Your task to perform on an android device: clear history in the chrome app Image 0: 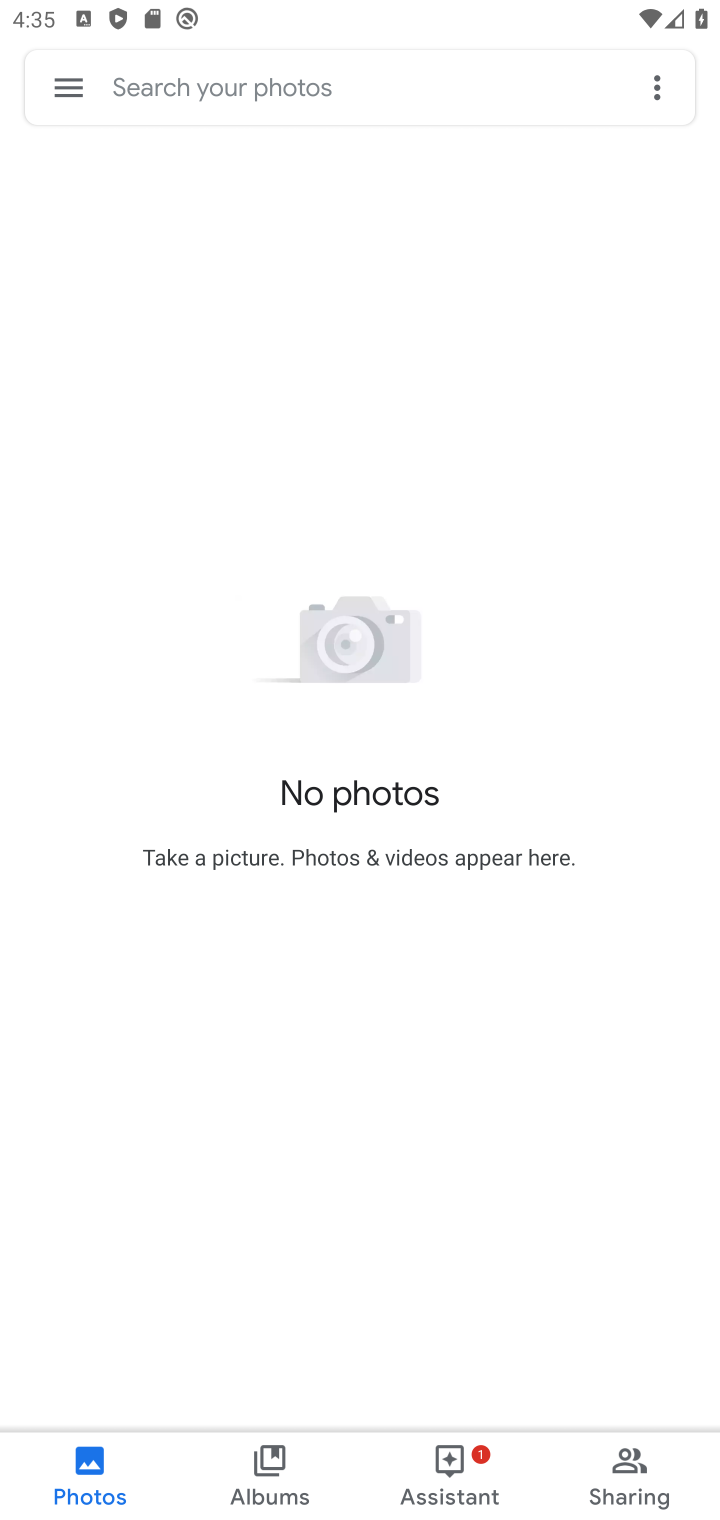
Step 0: press home button
Your task to perform on an android device: clear history in the chrome app Image 1: 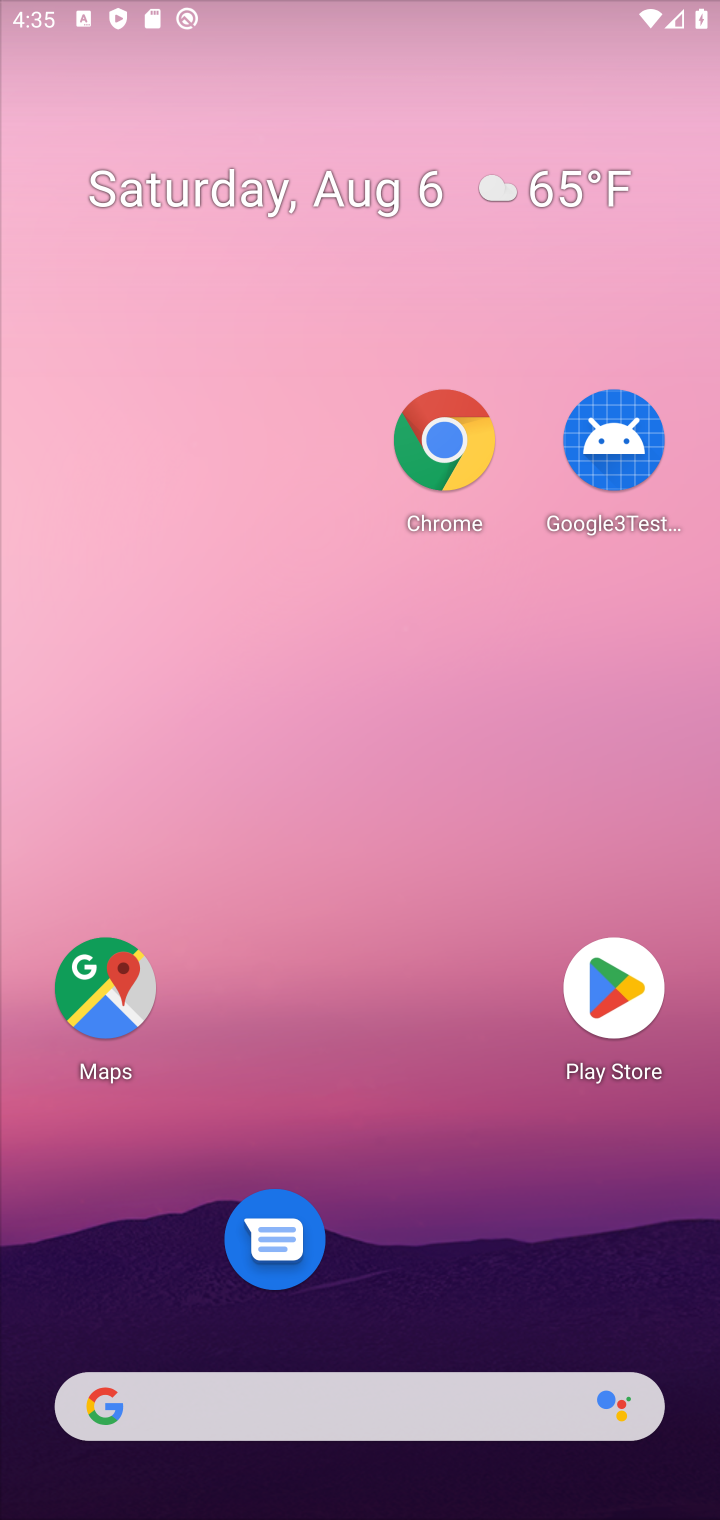
Step 1: drag from (488, 1406) to (522, 93)
Your task to perform on an android device: clear history in the chrome app Image 2: 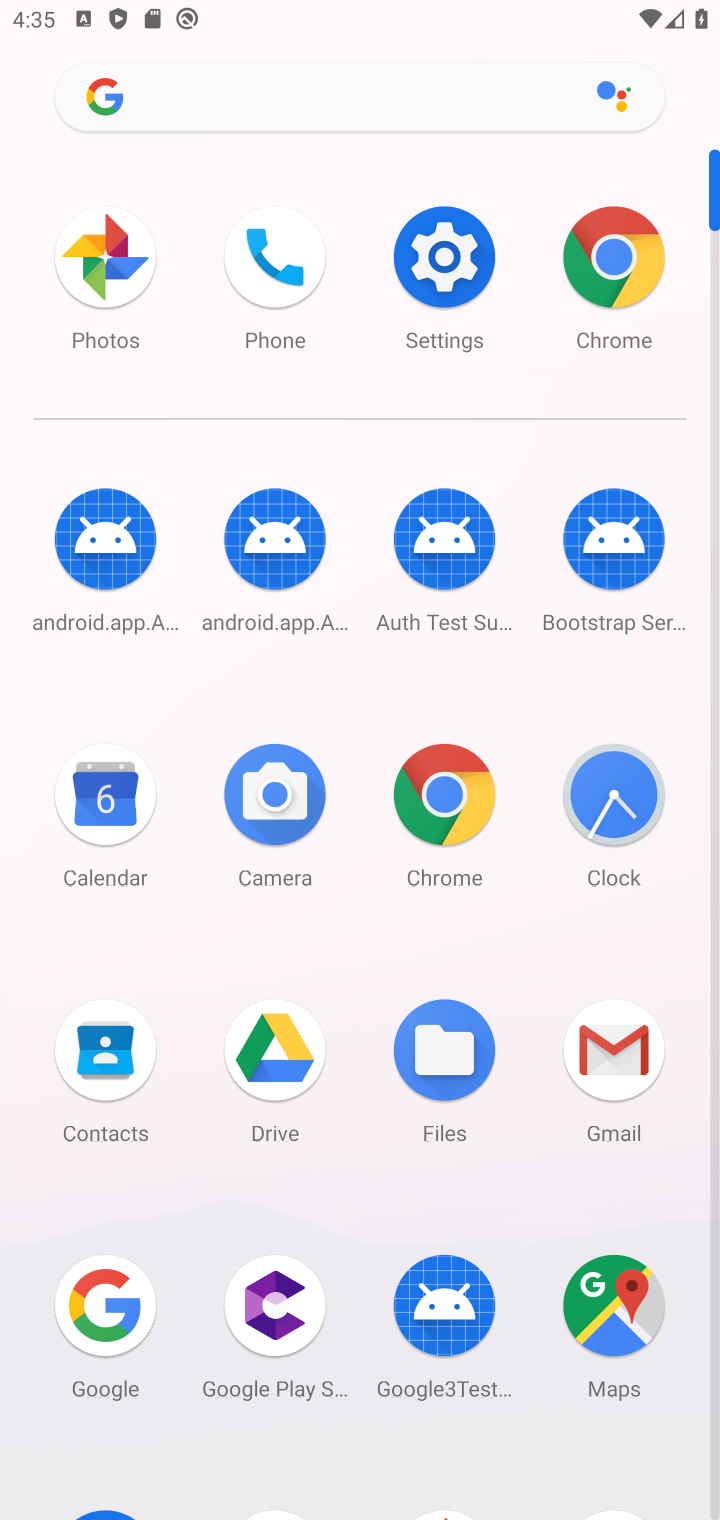
Step 2: click (432, 799)
Your task to perform on an android device: clear history in the chrome app Image 3: 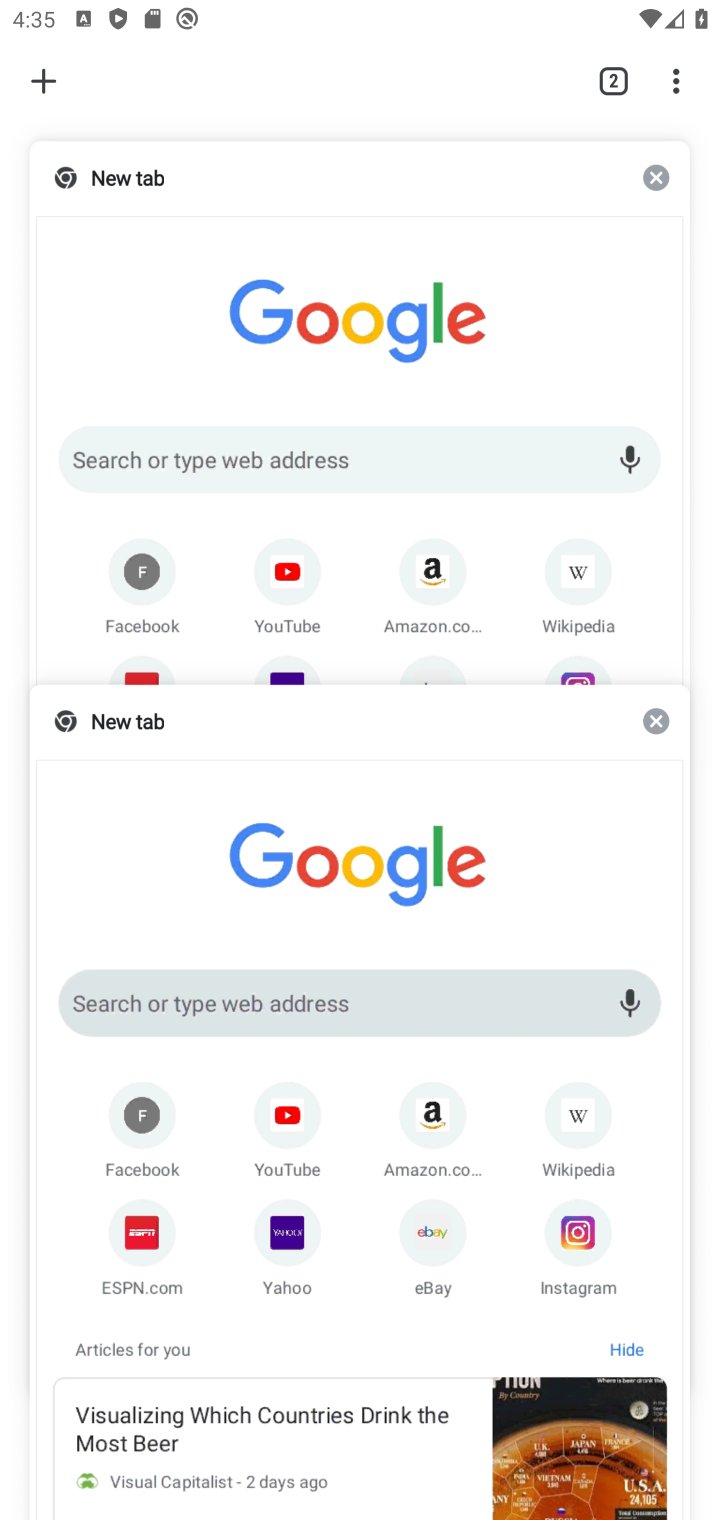
Step 3: click (683, 82)
Your task to perform on an android device: clear history in the chrome app Image 4: 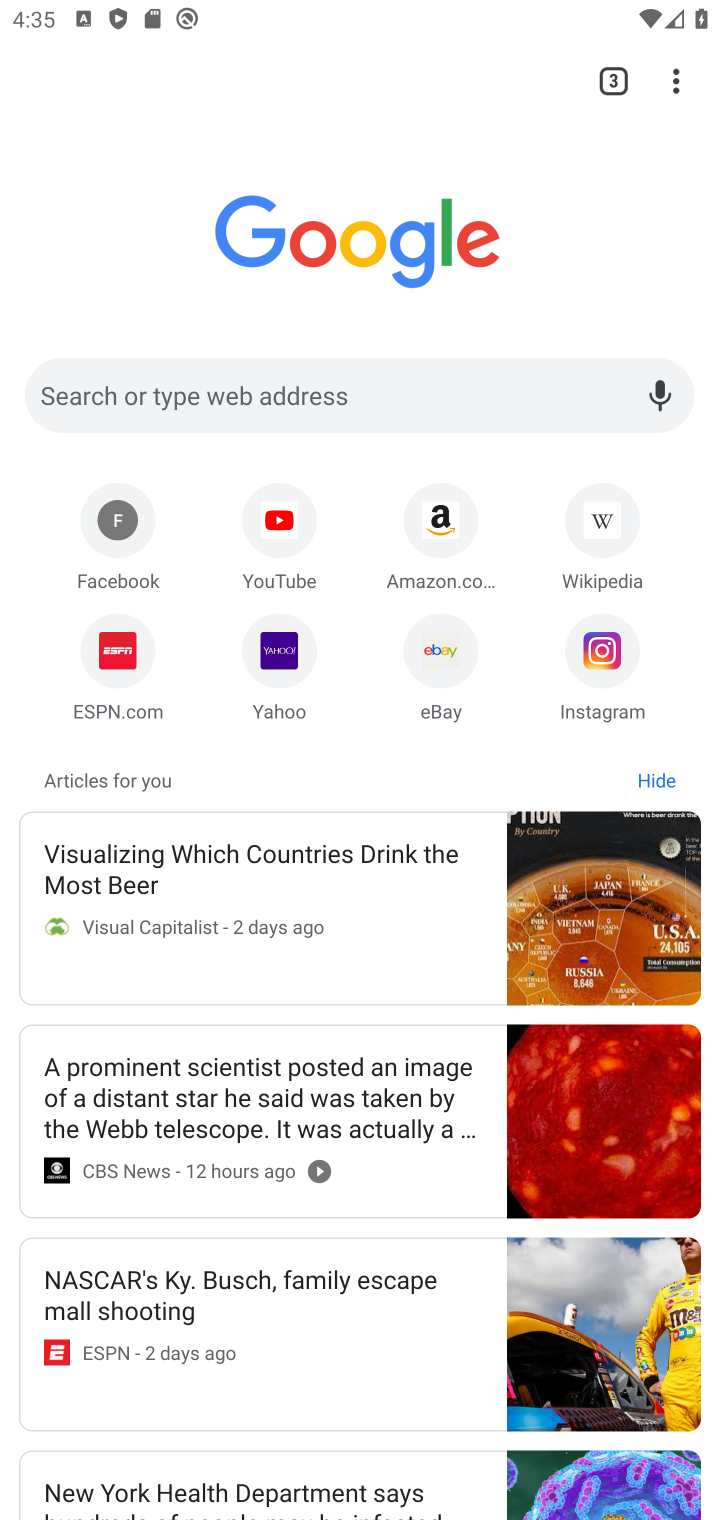
Step 4: click (671, 81)
Your task to perform on an android device: clear history in the chrome app Image 5: 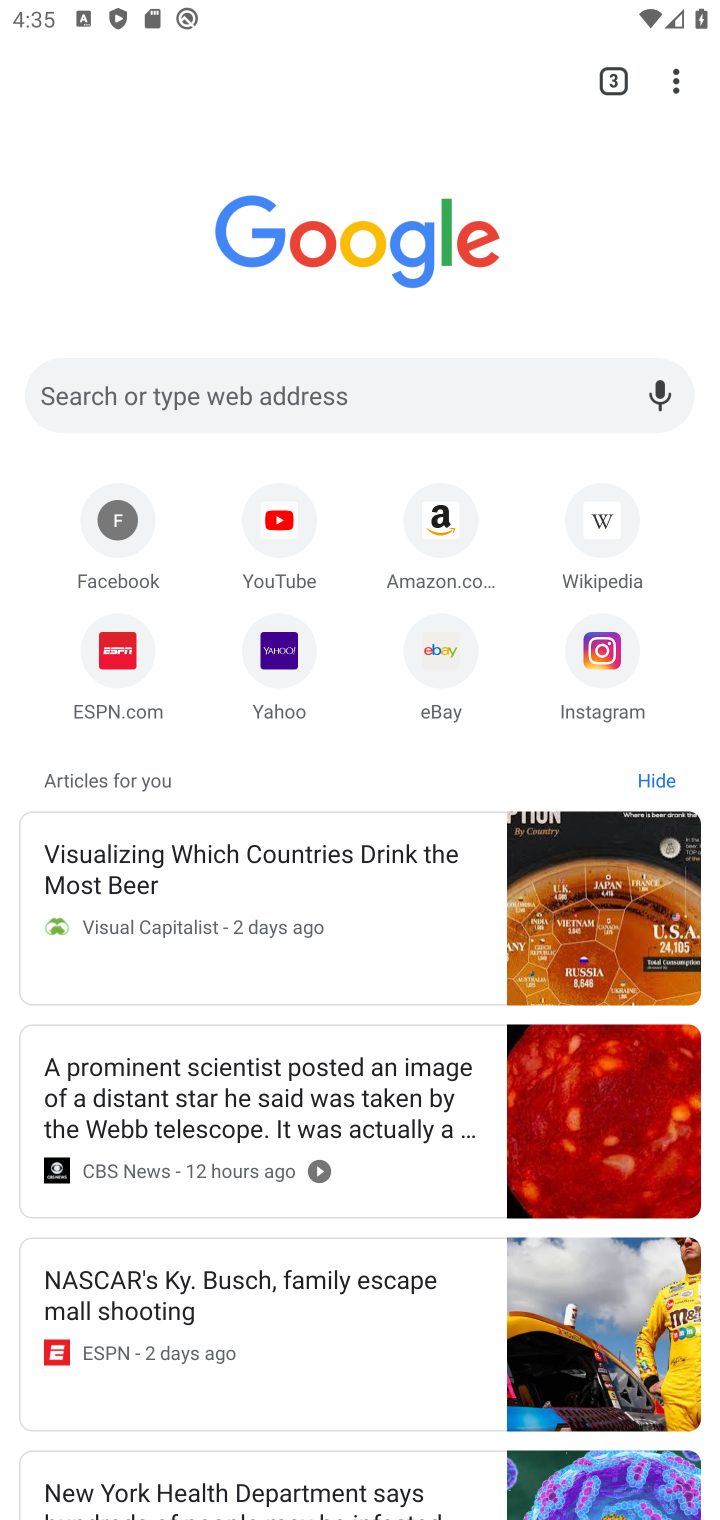
Step 5: drag from (675, 67) to (387, 456)
Your task to perform on an android device: clear history in the chrome app Image 6: 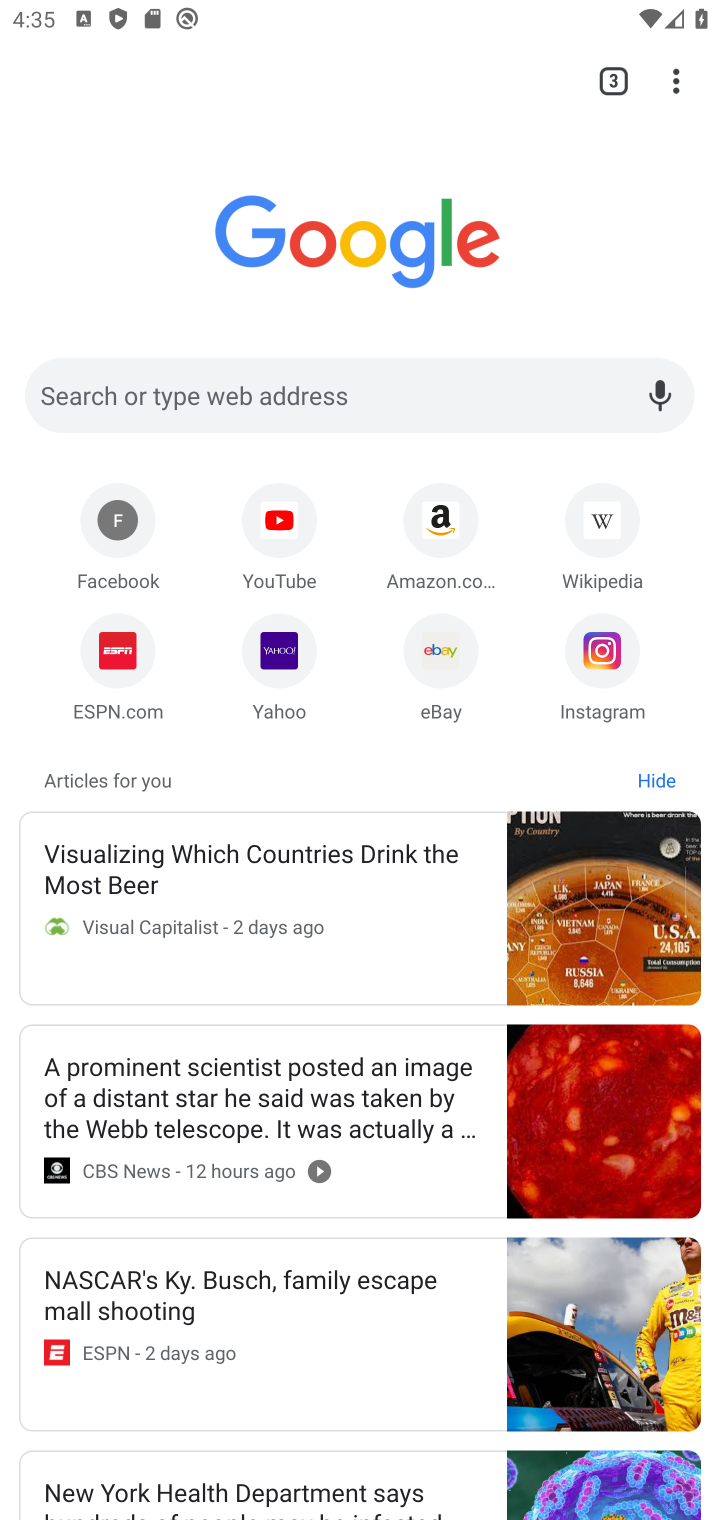
Step 6: click (387, 456)
Your task to perform on an android device: clear history in the chrome app Image 7: 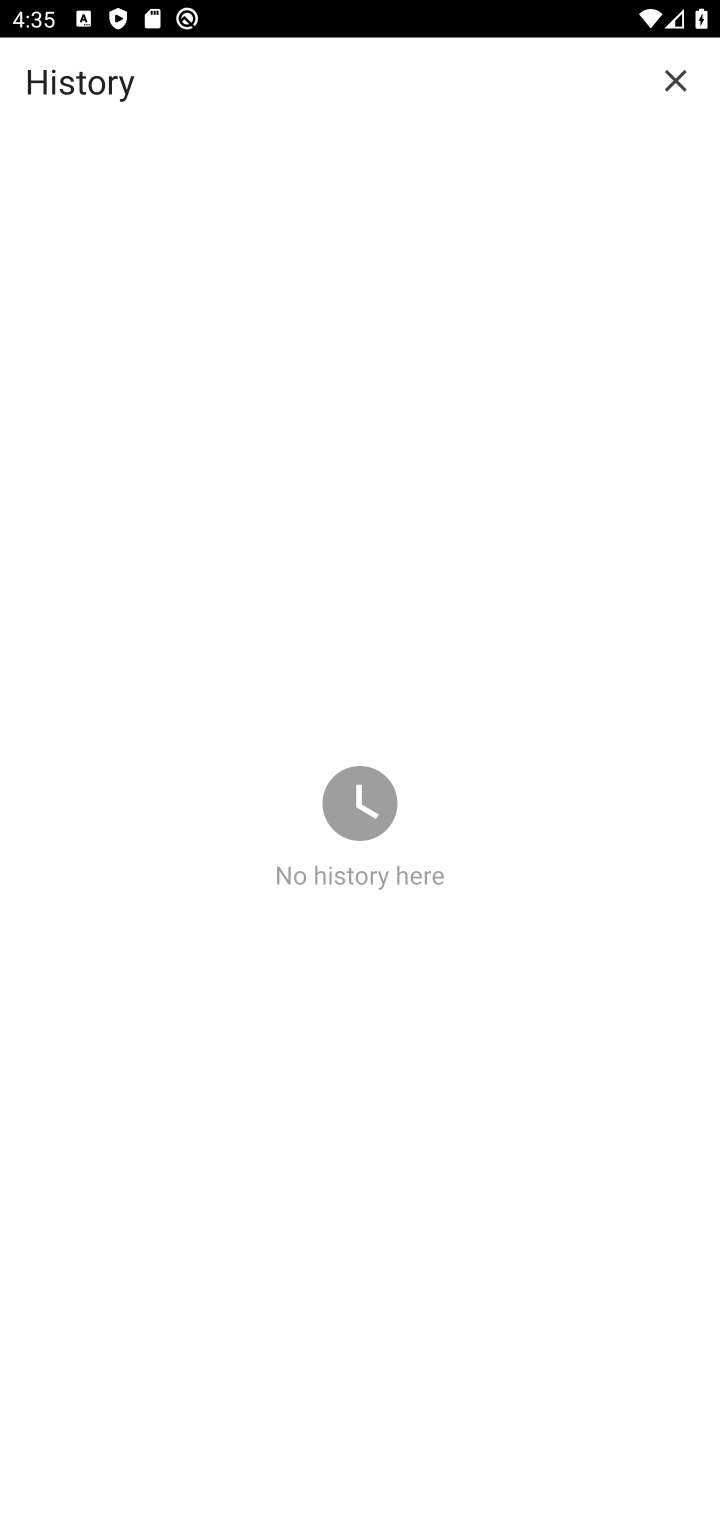
Step 7: task complete